Your task to perform on an android device: read, delete, or share a saved page in the chrome app Image 0: 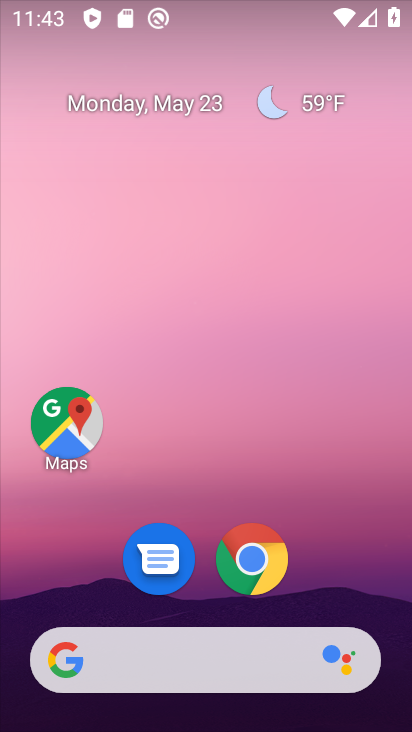
Step 0: click (244, 559)
Your task to perform on an android device: read, delete, or share a saved page in the chrome app Image 1: 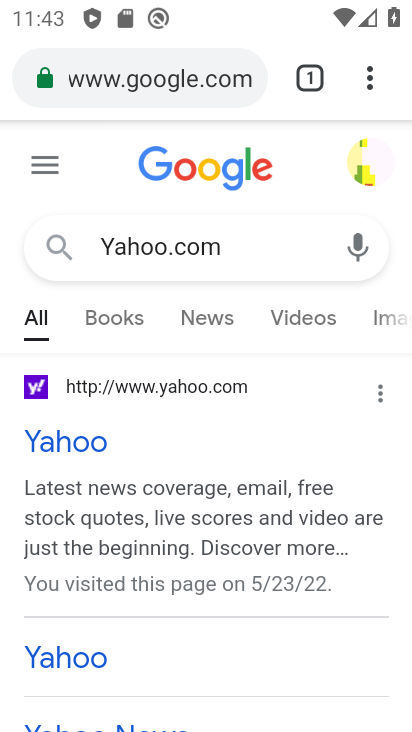
Step 1: click (367, 72)
Your task to perform on an android device: read, delete, or share a saved page in the chrome app Image 2: 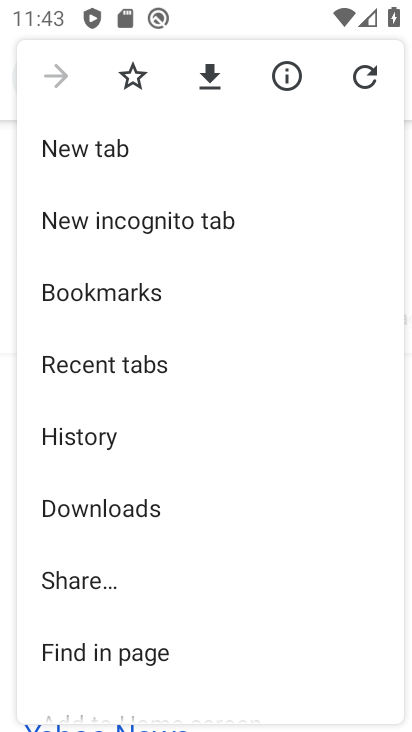
Step 2: click (73, 509)
Your task to perform on an android device: read, delete, or share a saved page in the chrome app Image 3: 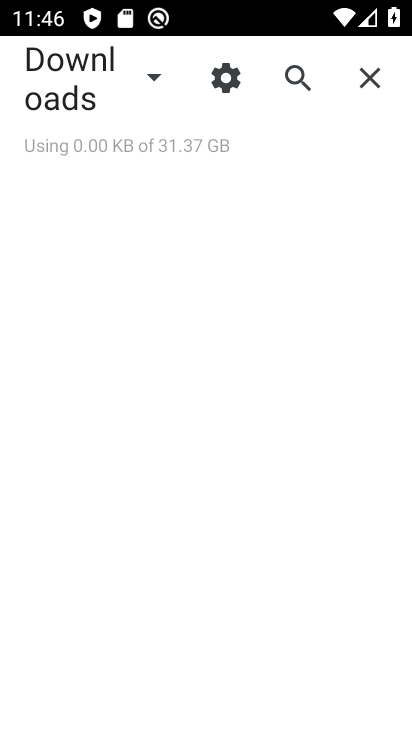
Step 3: task complete